Your task to perform on an android device: Is it going to rain today? Image 0: 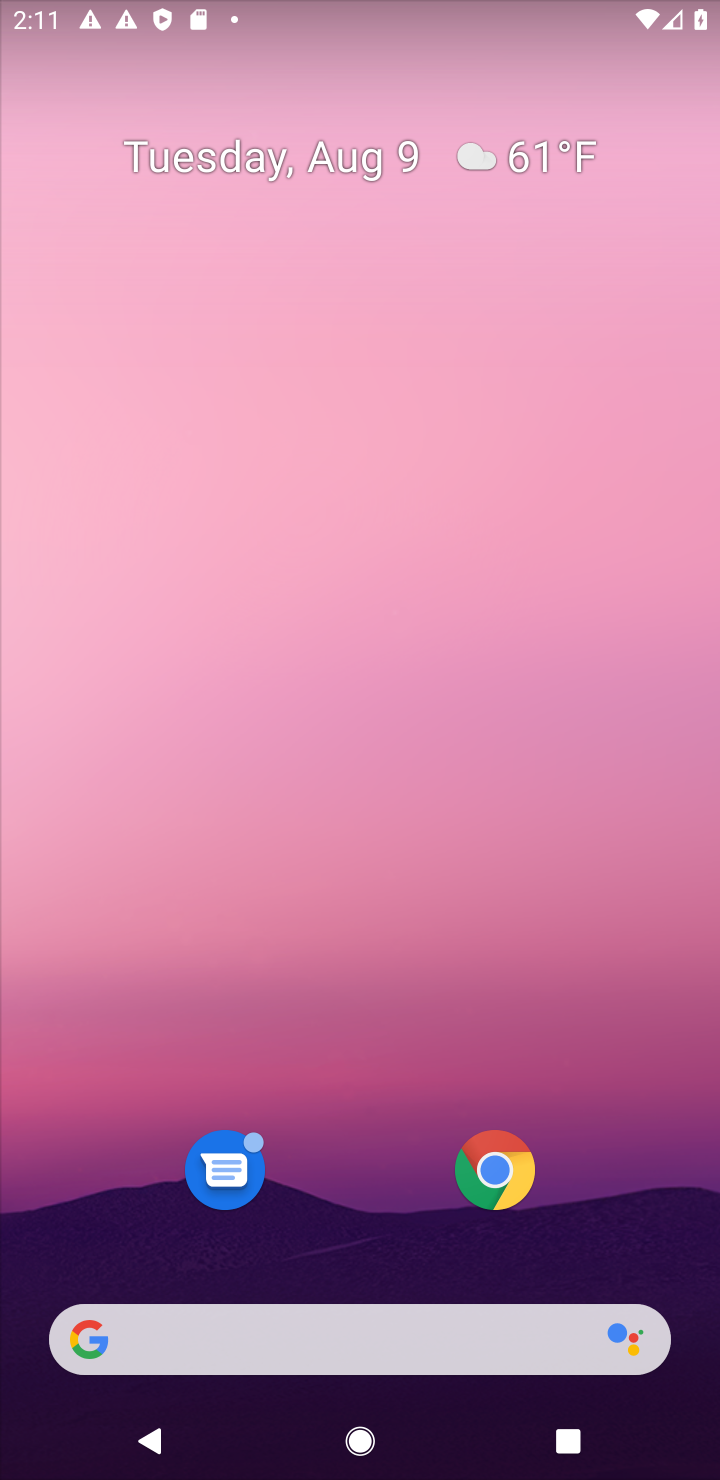
Step 0: press home button
Your task to perform on an android device: Is it going to rain today? Image 1: 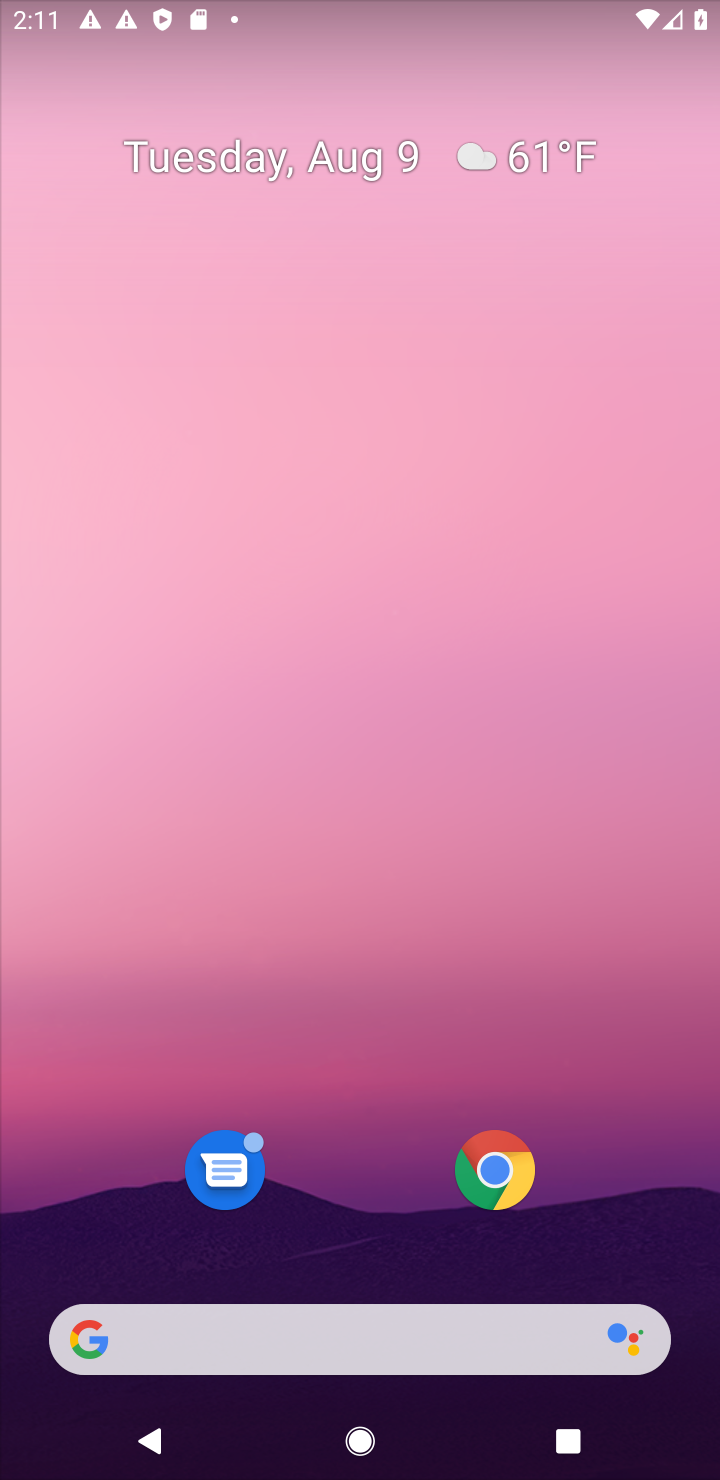
Step 1: click (496, 152)
Your task to perform on an android device: Is it going to rain today? Image 2: 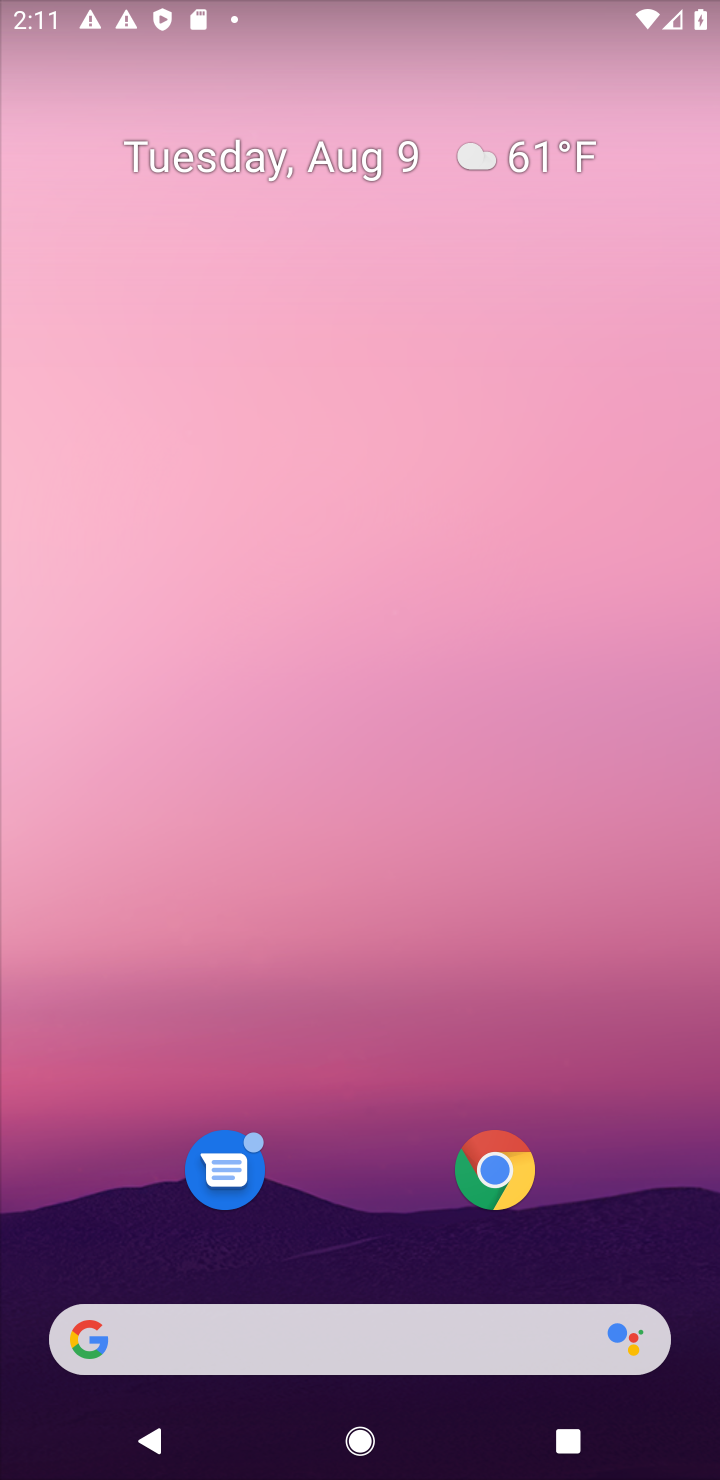
Step 2: click (548, 154)
Your task to perform on an android device: Is it going to rain today? Image 3: 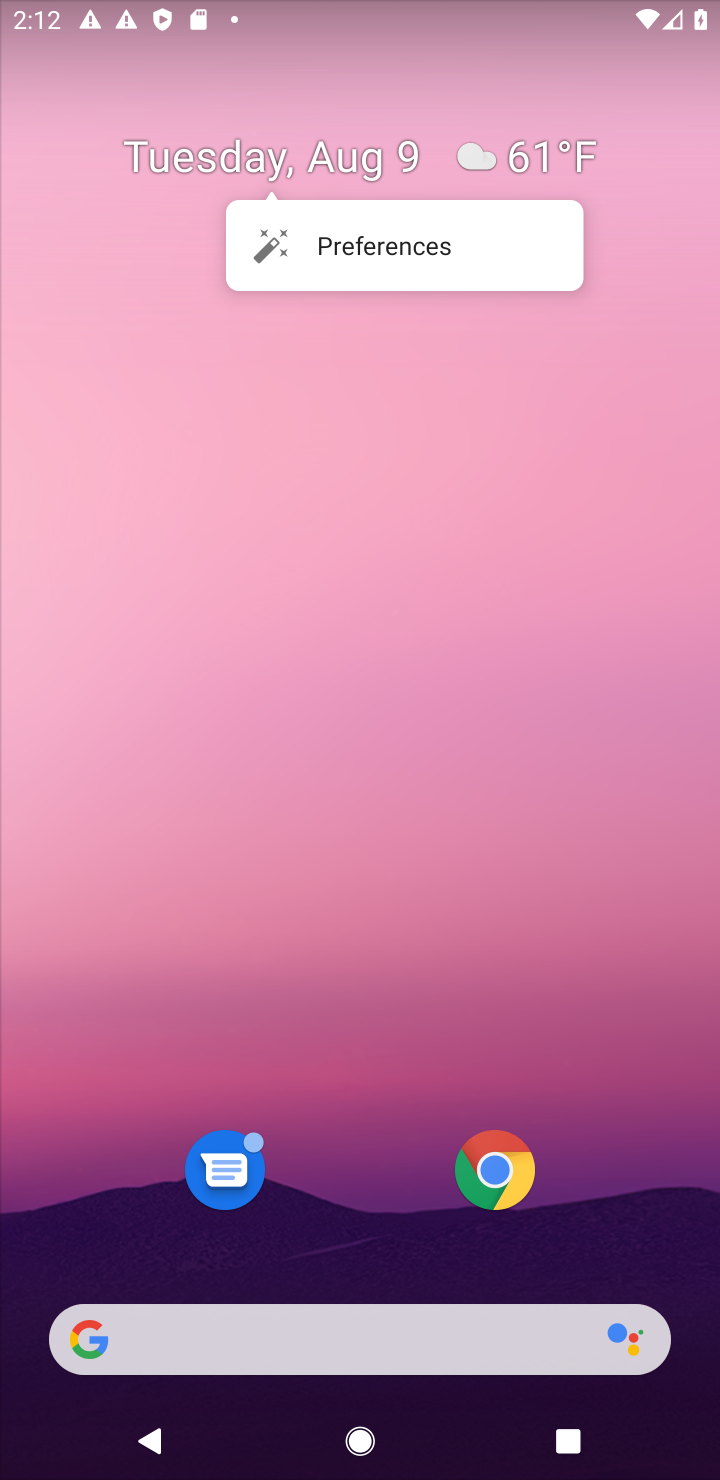
Step 3: click (558, 173)
Your task to perform on an android device: Is it going to rain today? Image 4: 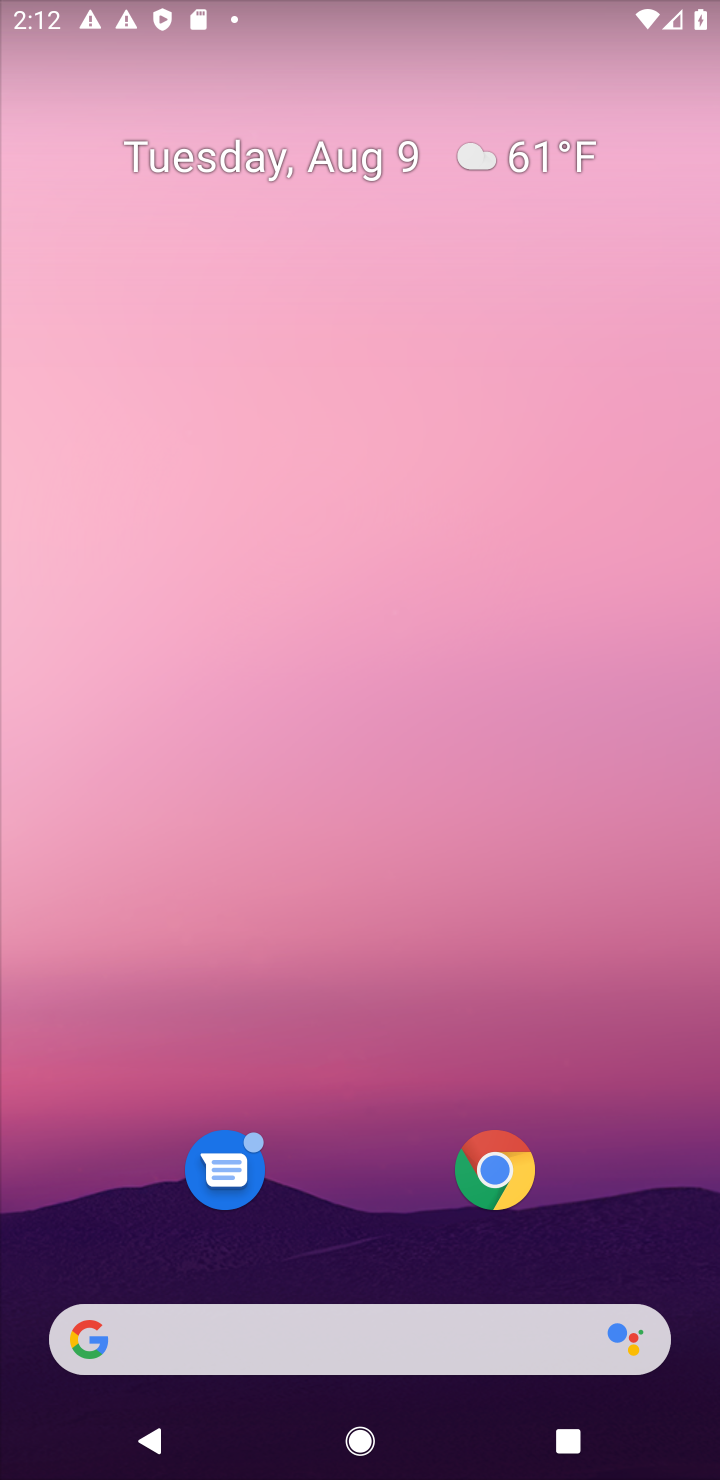
Step 4: click (519, 144)
Your task to perform on an android device: Is it going to rain today? Image 5: 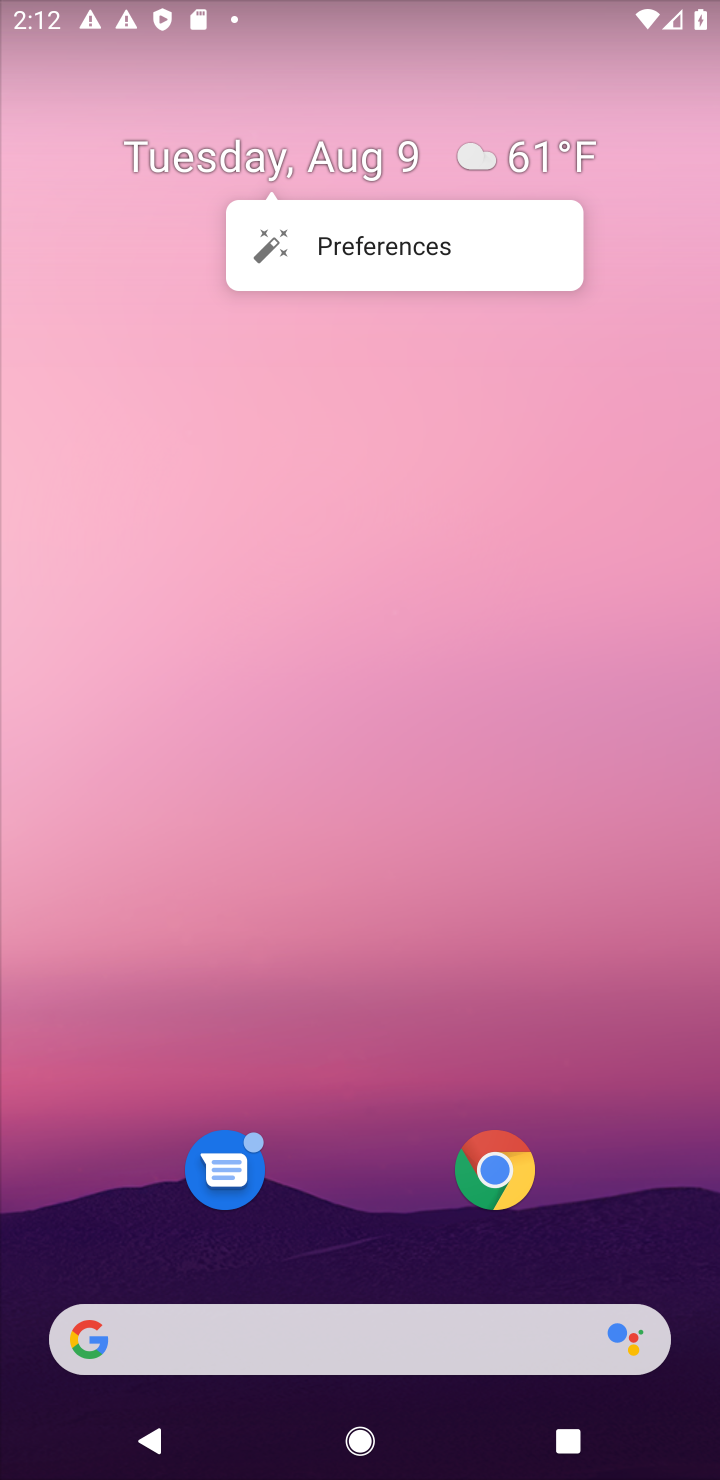
Step 5: click (521, 158)
Your task to perform on an android device: Is it going to rain today? Image 6: 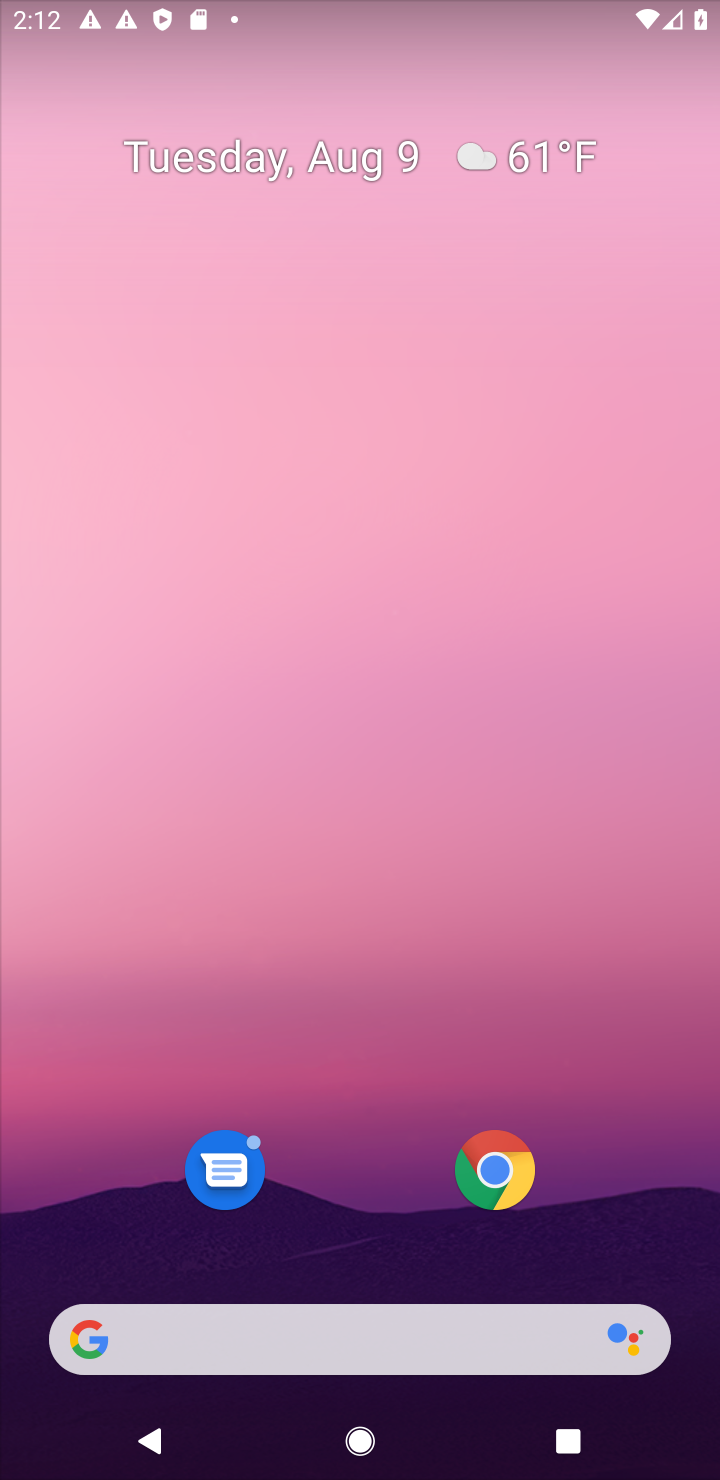
Step 6: click (349, 1350)
Your task to perform on an android device: Is it going to rain today? Image 7: 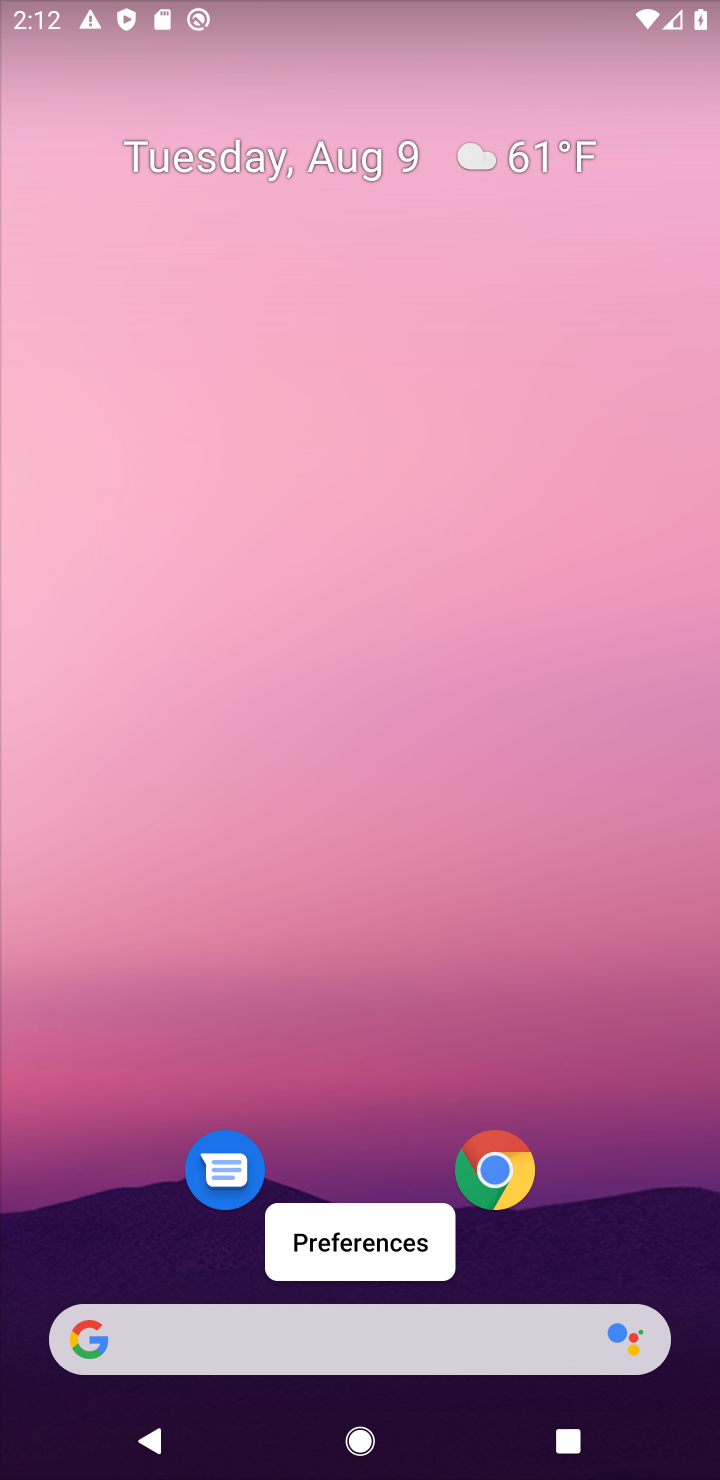
Step 7: click (301, 1321)
Your task to perform on an android device: Is it going to rain today? Image 8: 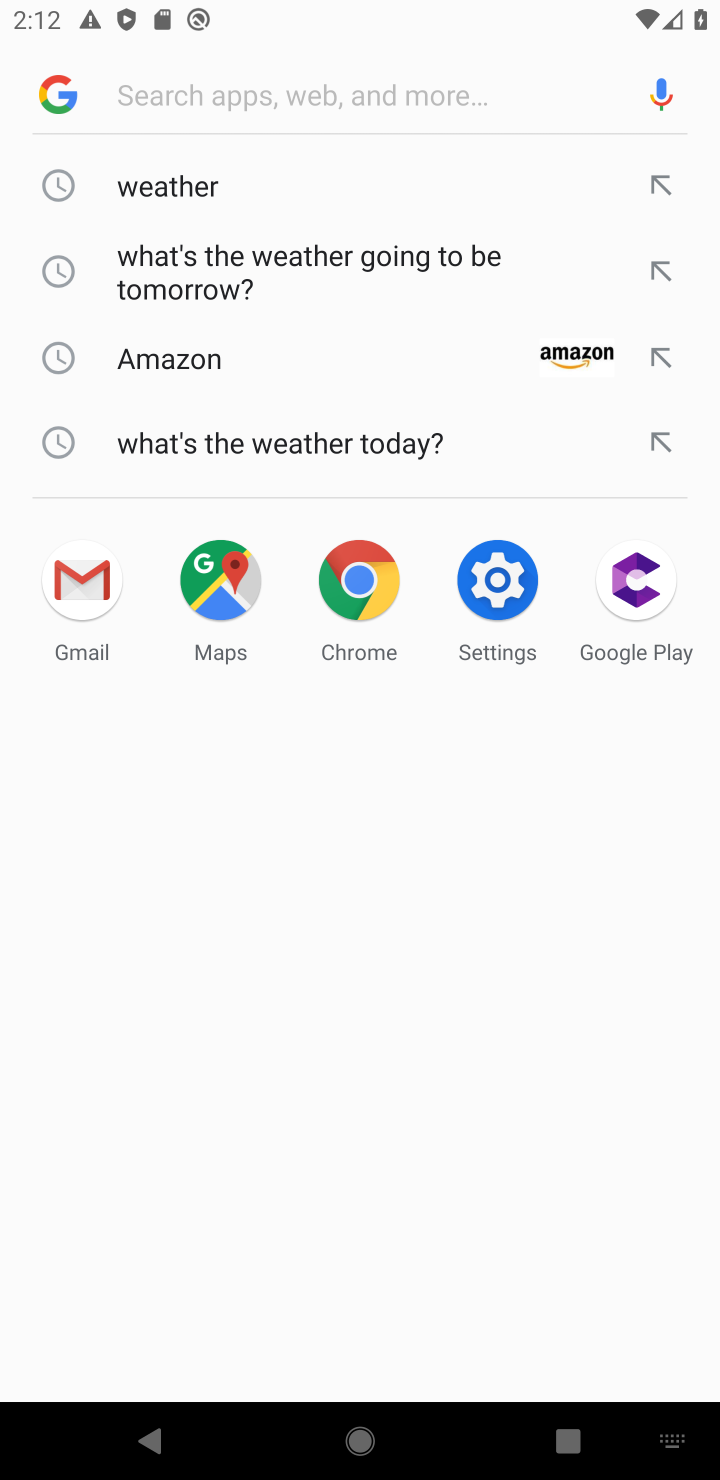
Step 8: click (185, 184)
Your task to perform on an android device: Is it going to rain today? Image 9: 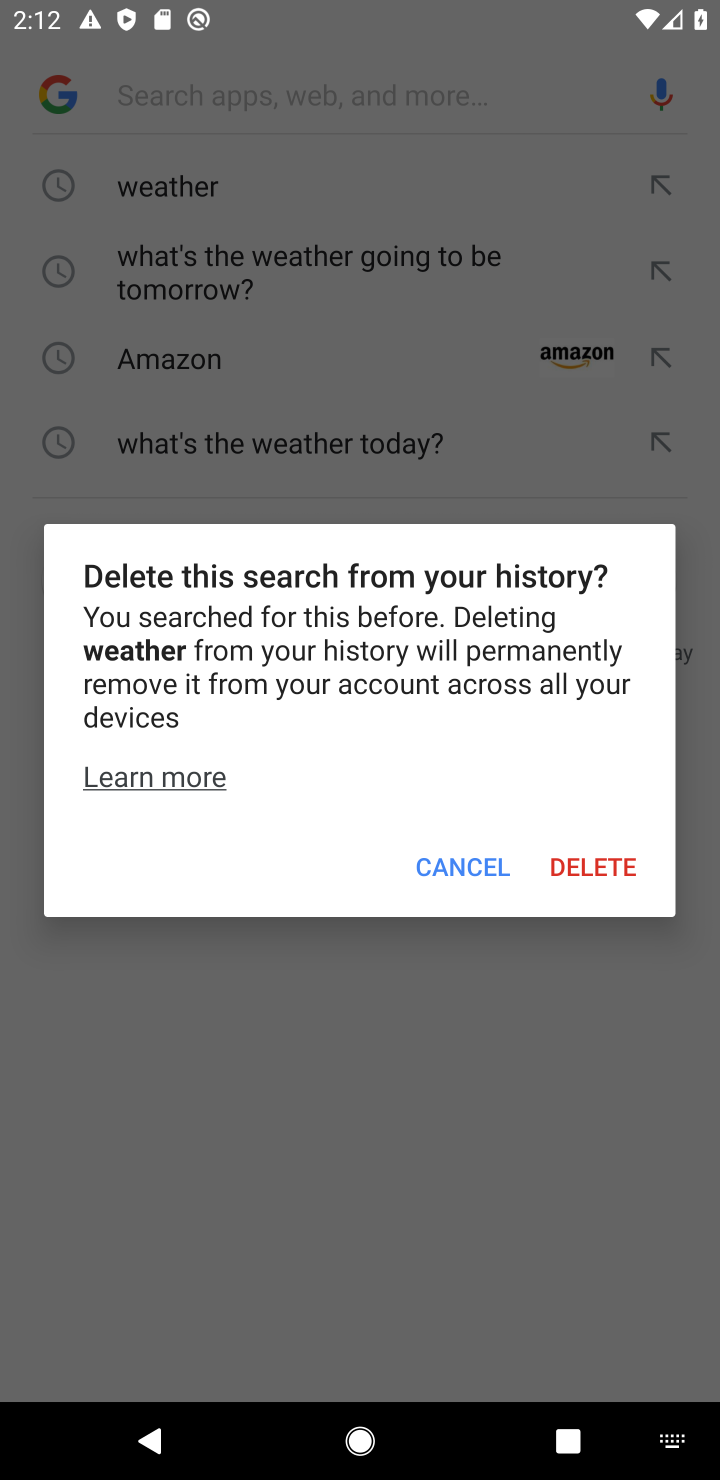
Step 9: click (444, 865)
Your task to perform on an android device: Is it going to rain today? Image 10: 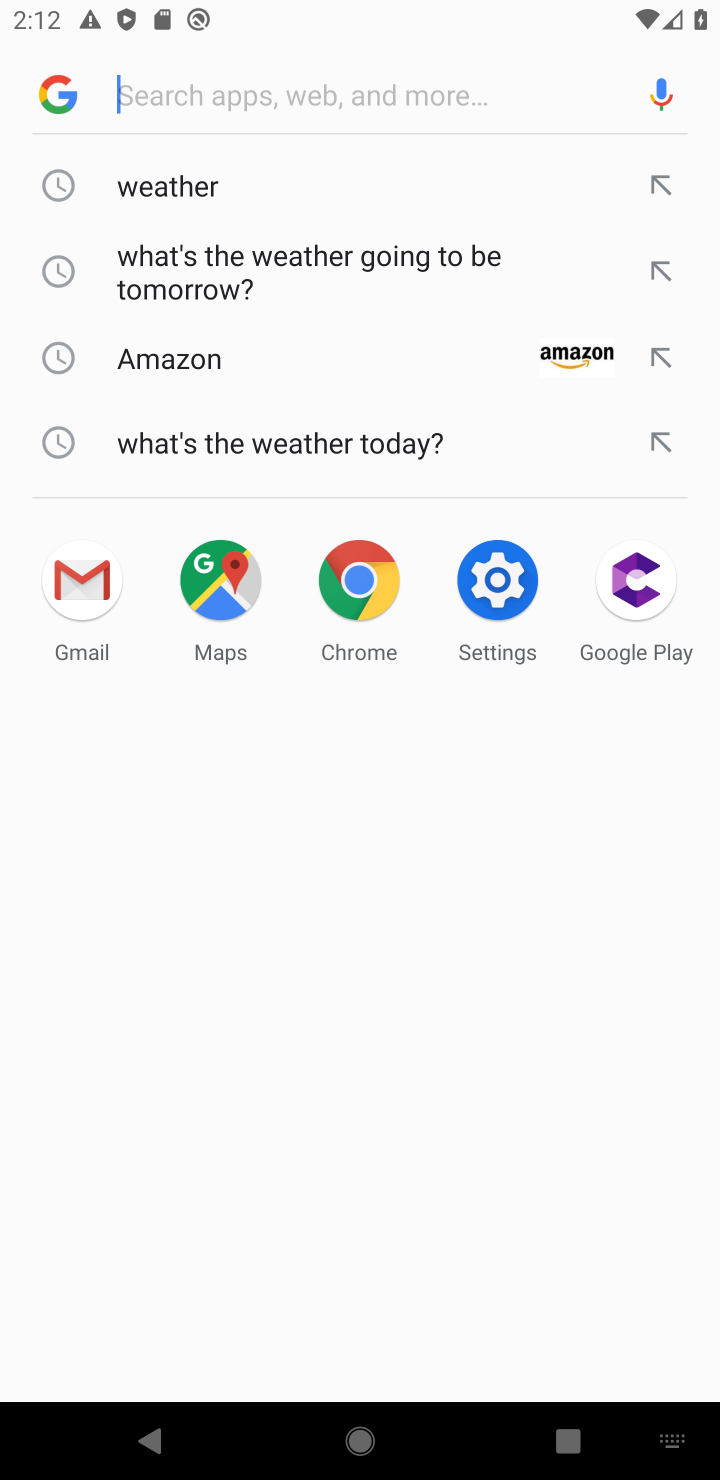
Step 10: click (159, 196)
Your task to perform on an android device: Is it going to rain today? Image 11: 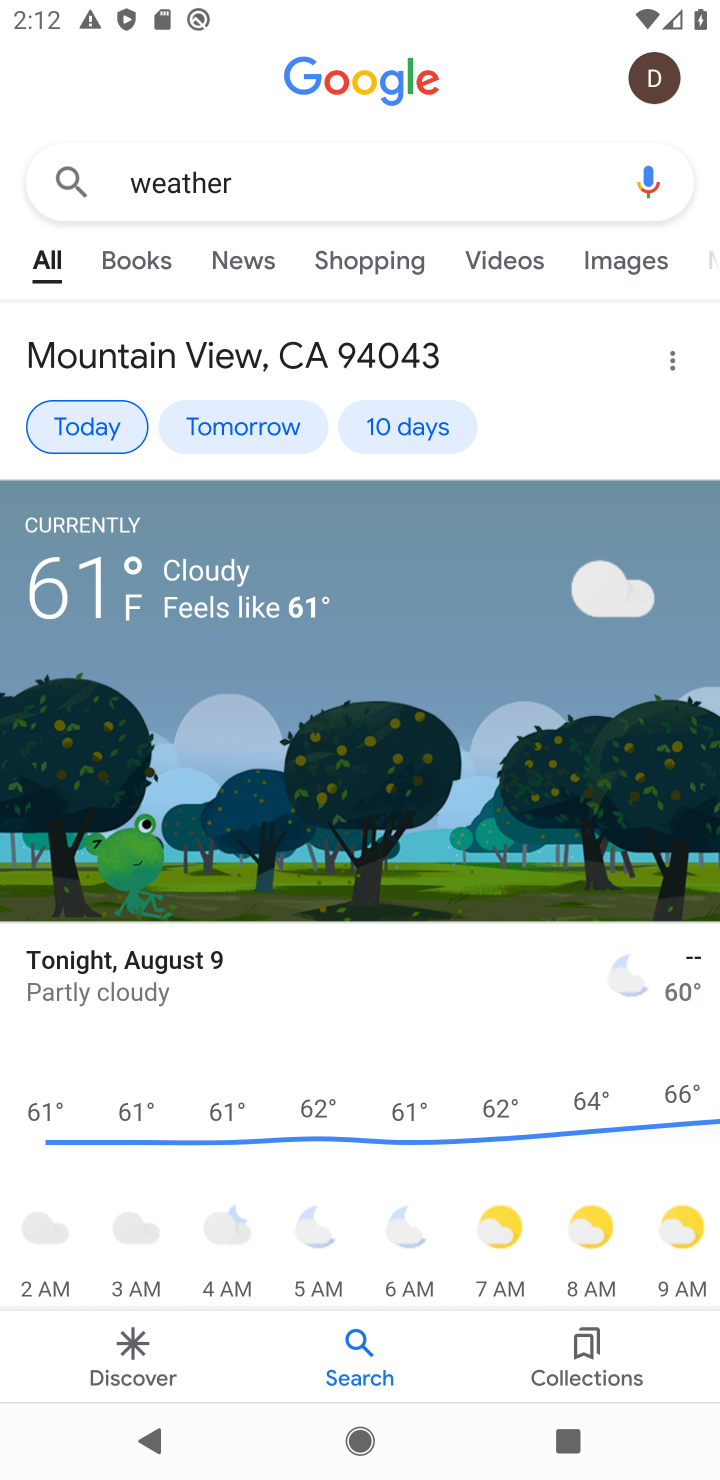
Step 11: task complete